Your task to perform on an android device: turn on priority inbox in the gmail app Image 0: 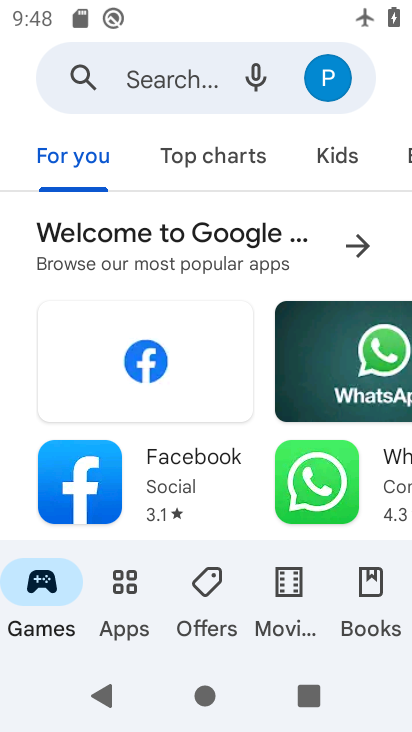
Step 0: press home button
Your task to perform on an android device: turn on priority inbox in the gmail app Image 1: 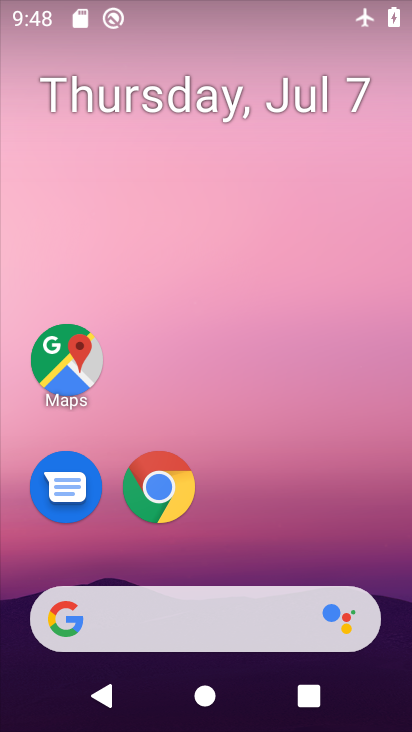
Step 1: drag from (343, 514) to (343, 140)
Your task to perform on an android device: turn on priority inbox in the gmail app Image 2: 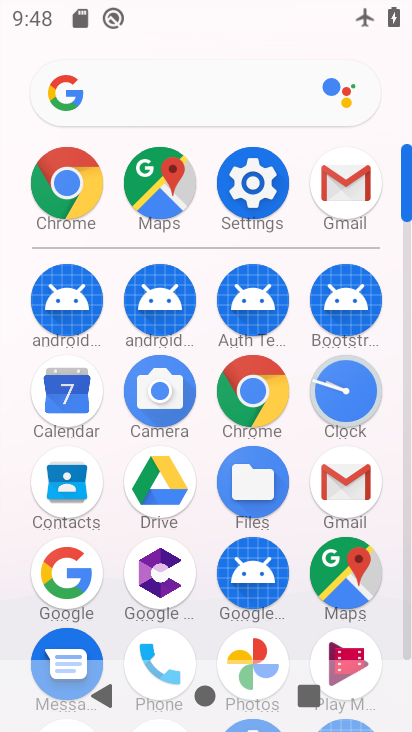
Step 2: click (350, 479)
Your task to perform on an android device: turn on priority inbox in the gmail app Image 3: 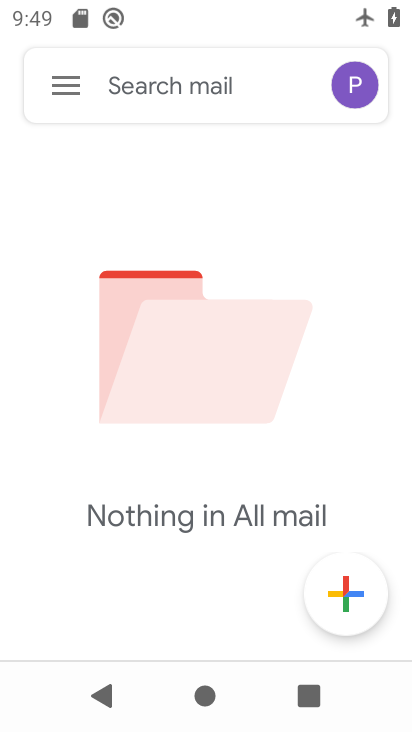
Step 3: click (71, 92)
Your task to perform on an android device: turn on priority inbox in the gmail app Image 4: 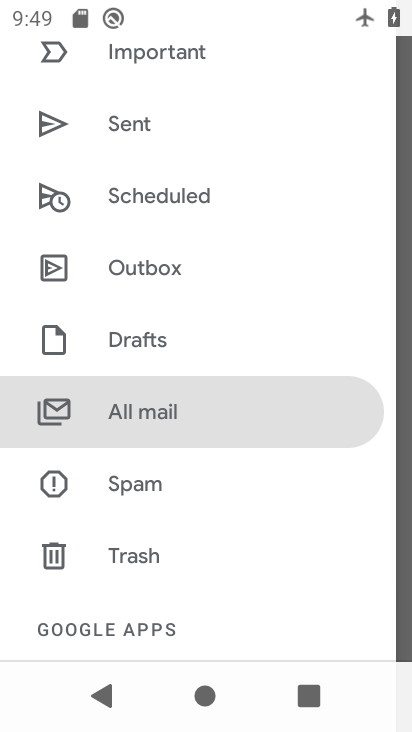
Step 4: drag from (273, 503) to (281, 397)
Your task to perform on an android device: turn on priority inbox in the gmail app Image 5: 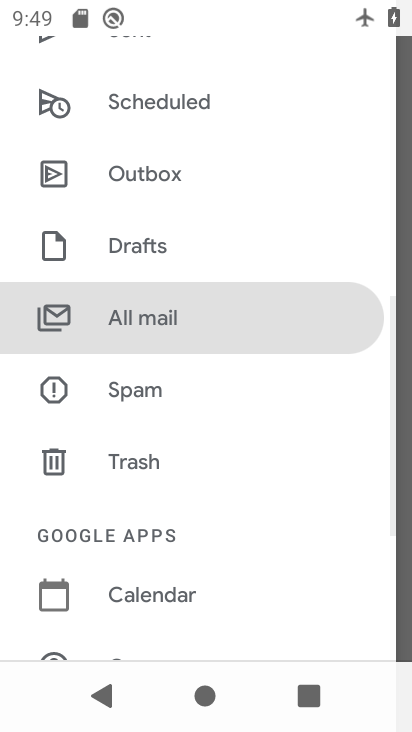
Step 5: drag from (273, 475) to (286, 398)
Your task to perform on an android device: turn on priority inbox in the gmail app Image 6: 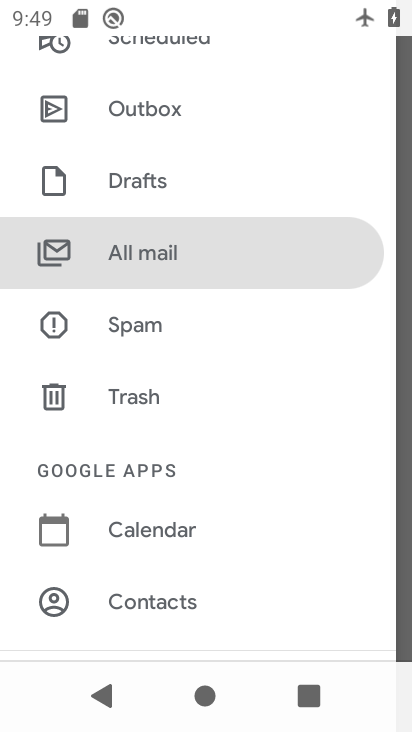
Step 6: drag from (293, 485) to (305, 381)
Your task to perform on an android device: turn on priority inbox in the gmail app Image 7: 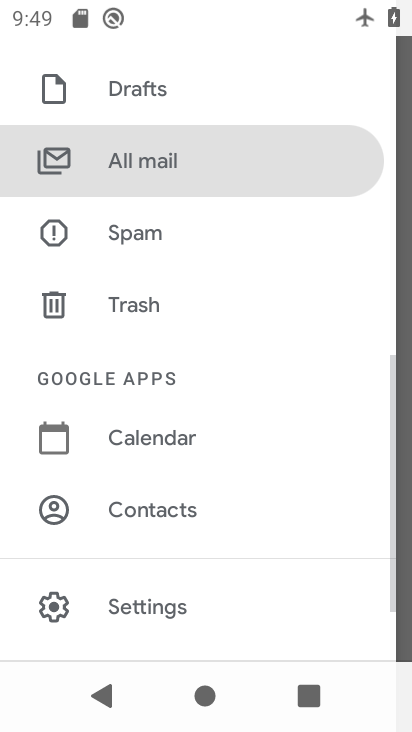
Step 7: drag from (302, 480) to (311, 368)
Your task to perform on an android device: turn on priority inbox in the gmail app Image 8: 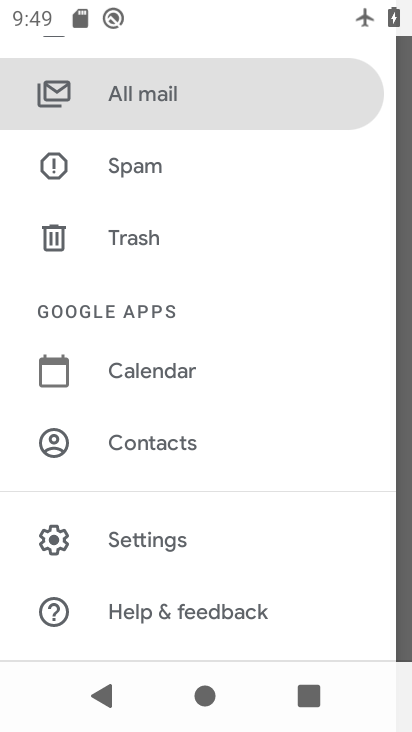
Step 8: click (271, 551)
Your task to perform on an android device: turn on priority inbox in the gmail app Image 9: 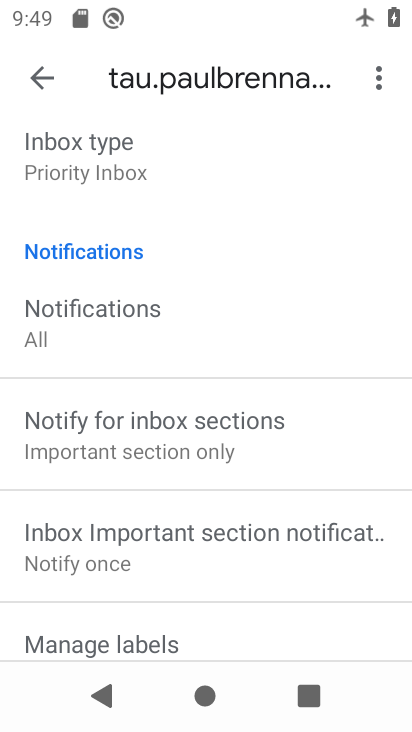
Step 9: task complete